Your task to perform on an android device: set an alarm Image 0: 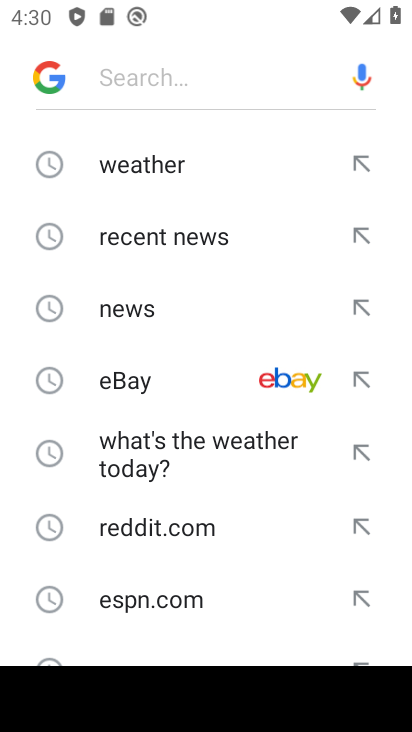
Step 0: press home button
Your task to perform on an android device: set an alarm Image 1: 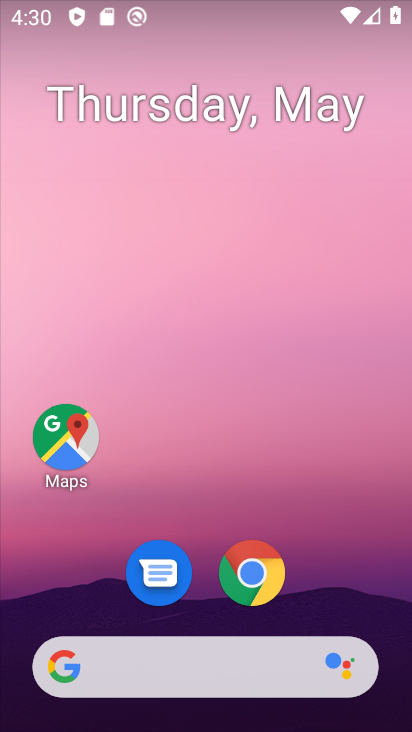
Step 1: drag from (302, 466) to (283, 97)
Your task to perform on an android device: set an alarm Image 2: 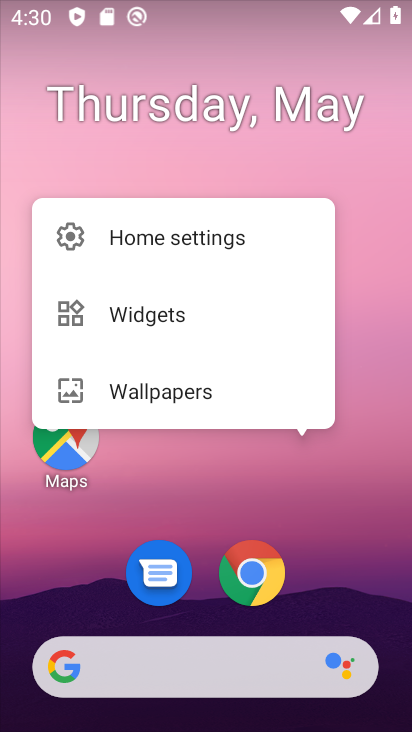
Step 2: click (298, 540)
Your task to perform on an android device: set an alarm Image 3: 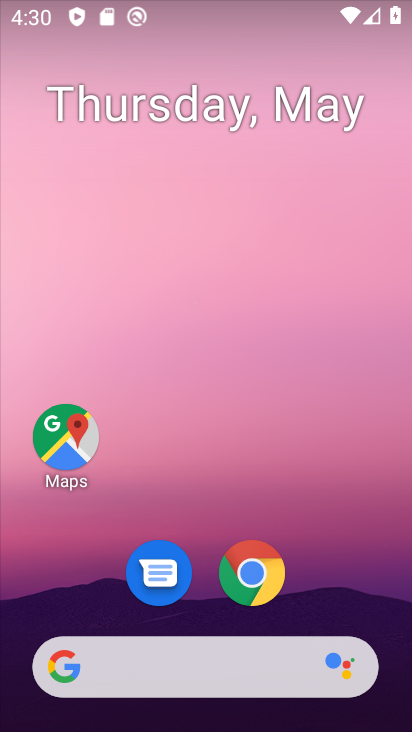
Step 3: drag from (246, 124) to (237, 71)
Your task to perform on an android device: set an alarm Image 4: 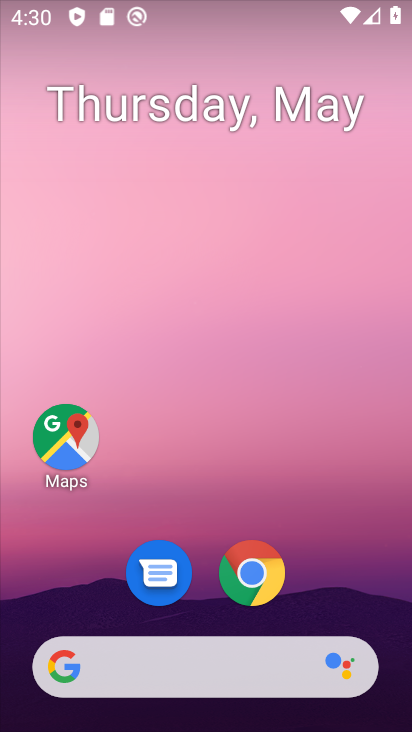
Step 4: drag from (312, 594) to (275, 82)
Your task to perform on an android device: set an alarm Image 5: 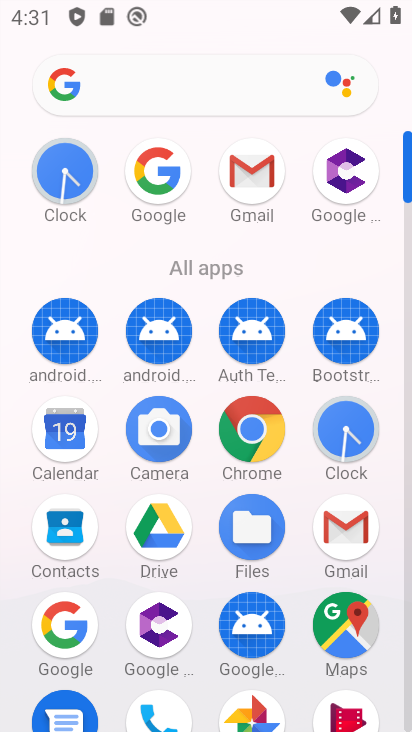
Step 5: click (353, 431)
Your task to perform on an android device: set an alarm Image 6: 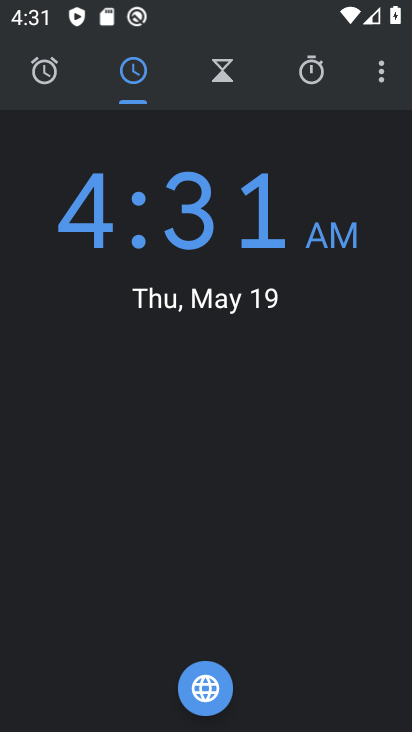
Step 6: click (43, 68)
Your task to perform on an android device: set an alarm Image 7: 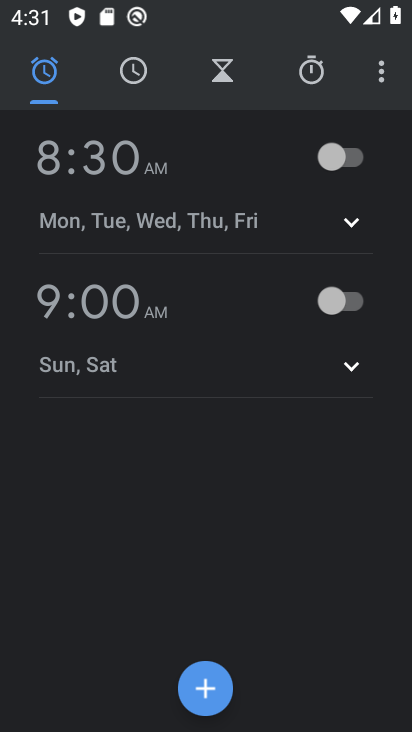
Step 7: click (356, 318)
Your task to perform on an android device: set an alarm Image 8: 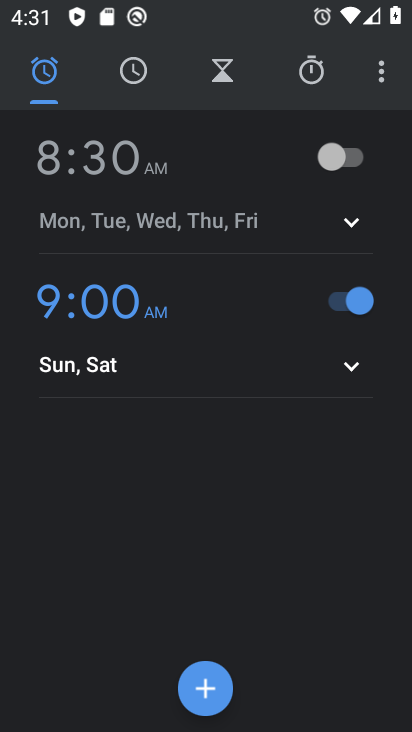
Step 8: task complete